Your task to perform on an android device: What is the recent news? Image 0: 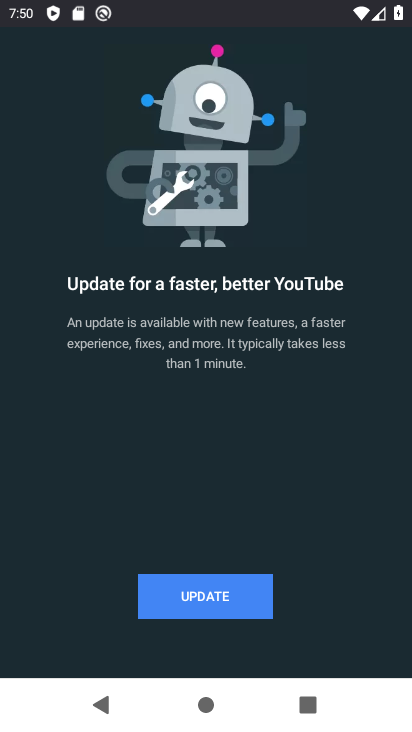
Step 0: press home button
Your task to perform on an android device: What is the recent news? Image 1: 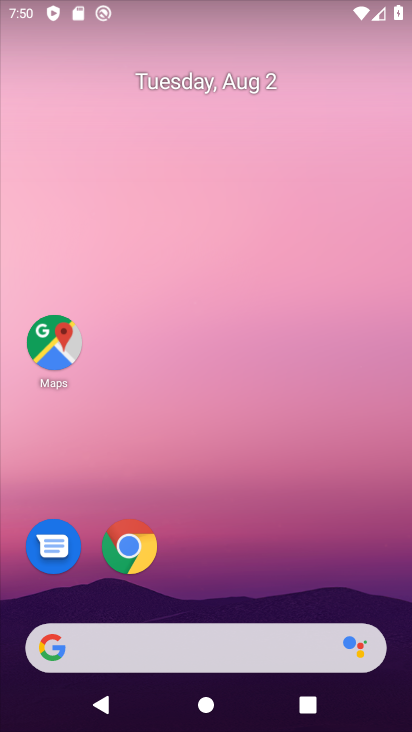
Step 1: click (135, 649)
Your task to perform on an android device: What is the recent news? Image 2: 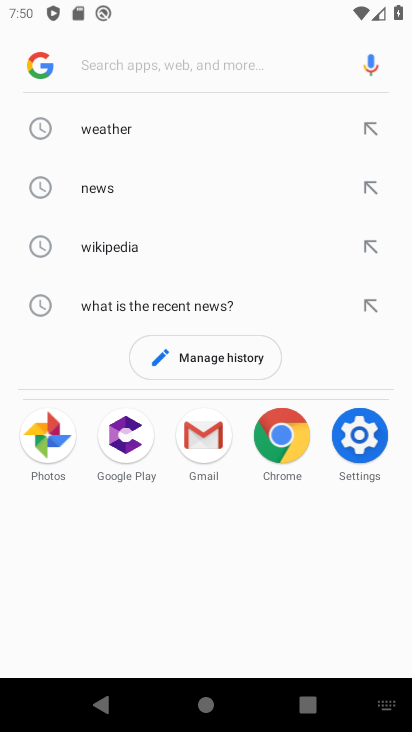
Step 2: type "recent news"
Your task to perform on an android device: What is the recent news? Image 3: 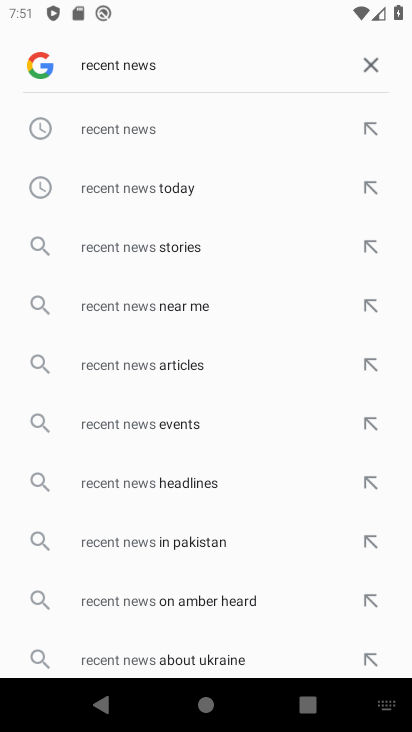
Step 3: click (135, 137)
Your task to perform on an android device: What is the recent news? Image 4: 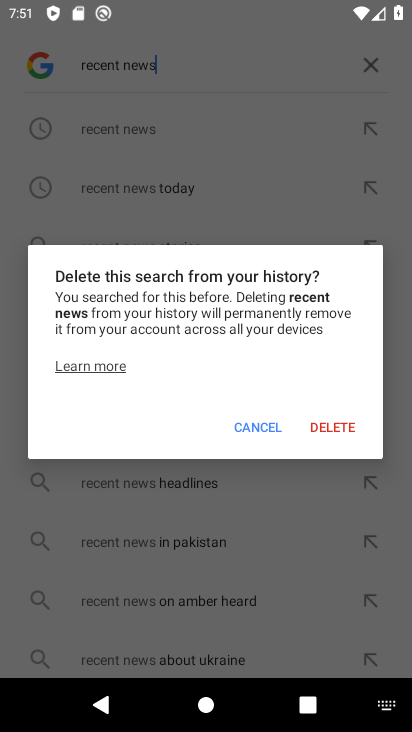
Step 4: click (273, 427)
Your task to perform on an android device: What is the recent news? Image 5: 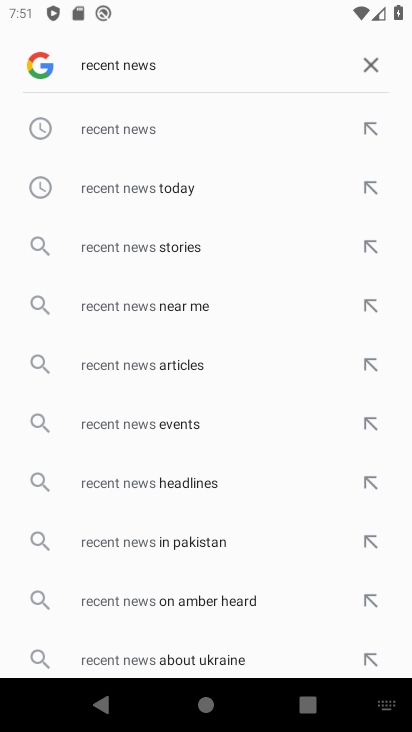
Step 5: click (143, 130)
Your task to perform on an android device: What is the recent news? Image 6: 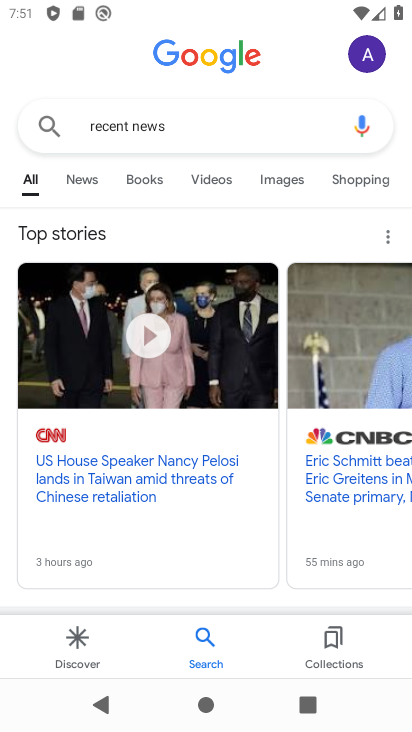
Step 6: task complete